Your task to perform on an android device: Show me productivity apps on the Play Store Image 0: 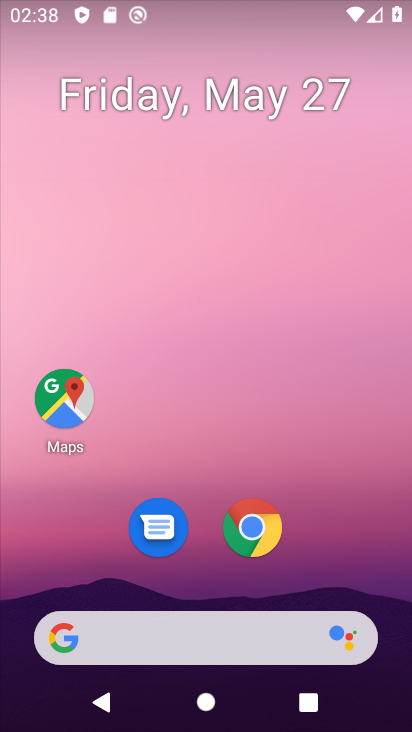
Step 0: drag from (268, 588) to (257, 232)
Your task to perform on an android device: Show me productivity apps on the Play Store Image 1: 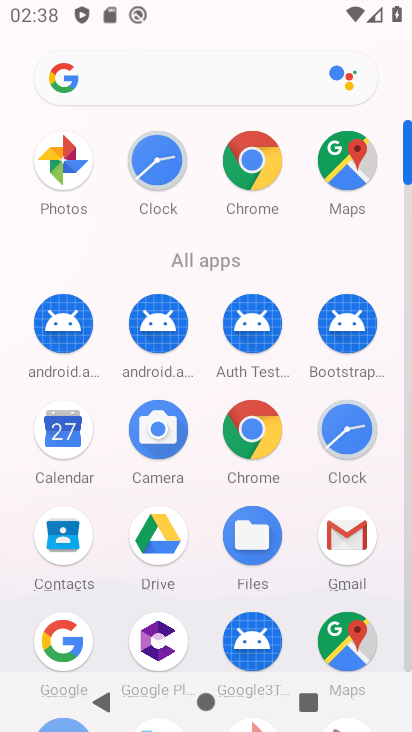
Step 1: drag from (148, 606) to (144, 320)
Your task to perform on an android device: Show me productivity apps on the Play Store Image 2: 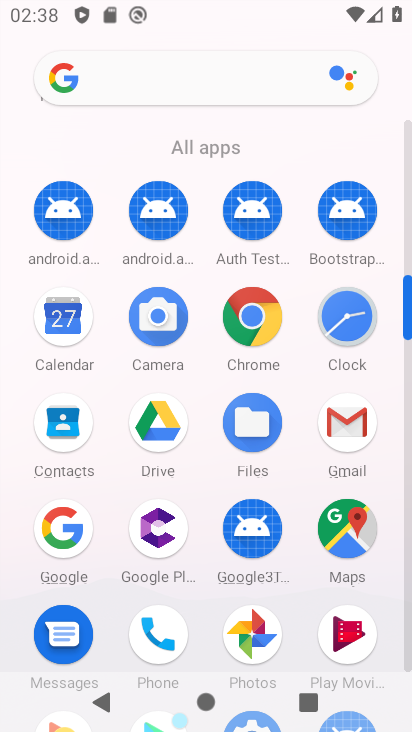
Step 2: drag from (249, 647) to (249, 414)
Your task to perform on an android device: Show me productivity apps on the Play Store Image 3: 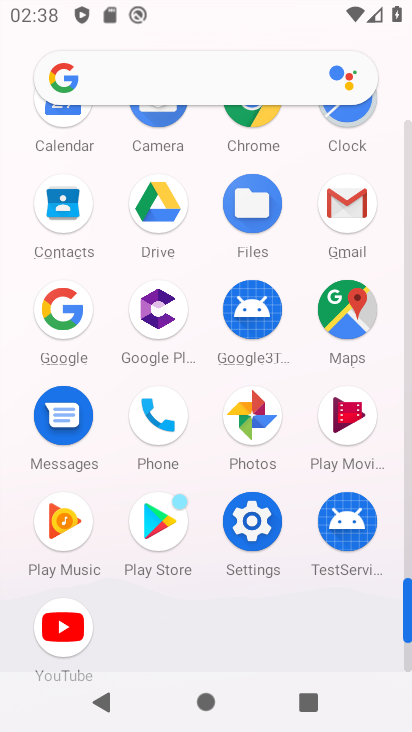
Step 3: click (174, 554)
Your task to perform on an android device: Show me productivity apps on the Play Store Image 4: 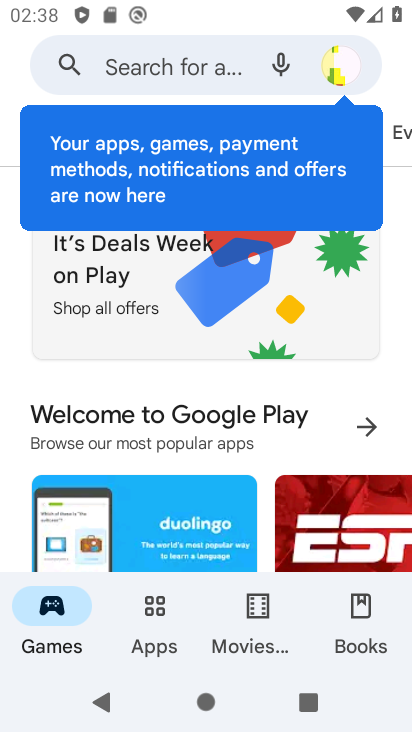
Step 4: click (164, 640)
Your task to perform on an android device: Show me productivity apps on the Play Store Image 5: 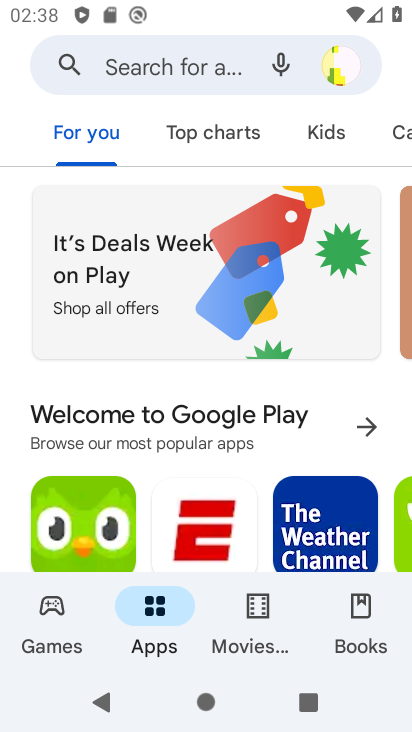
Step 5: drag from (324, 135) to (2, 118)
Your task to perform on an android device: Show me productivity apps on the Play Store Image 6: 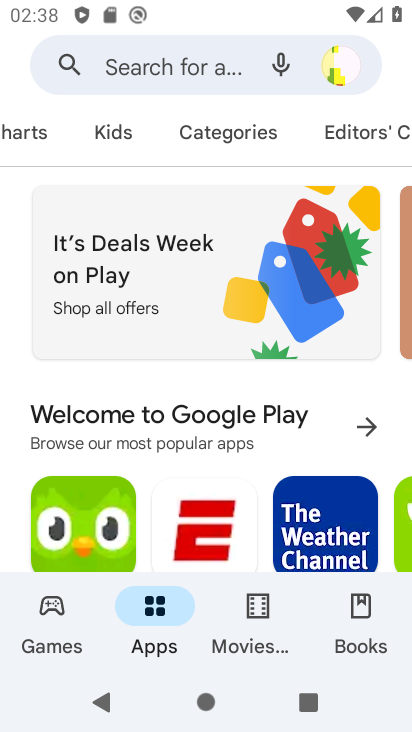
Step 6: click (243, 129)
Your task to perform on an android device: Show me productivity apps on the Play Store Image 7: 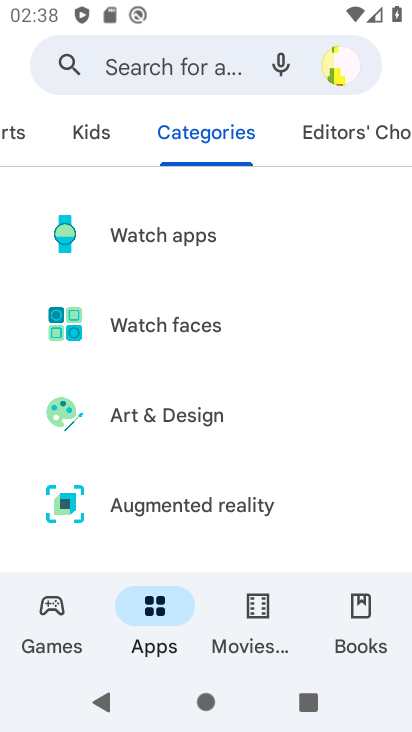
Step 7: drag from (181, 518) to (209, 223)
Your task to perform on an android device: Show me productivity apps on the Play Store Image 8: 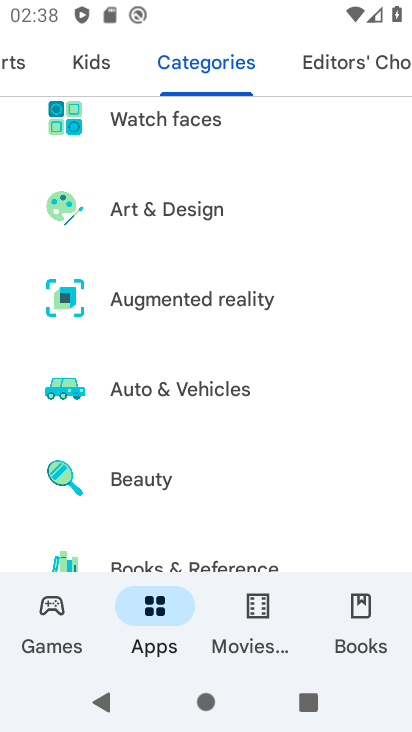
Step 8: drag from (194, 511) to (220, 212)
Your task to perform on an android device: Show me productivity apps on the Play Store Image 9: 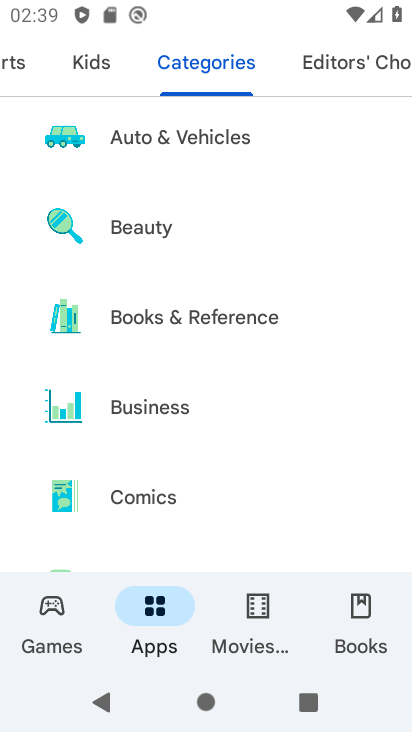
Step 9: drag from (203, 472) to (228, 191)
Your task to perform on an android device: Show me productivity apps on the Play Store Image 10: 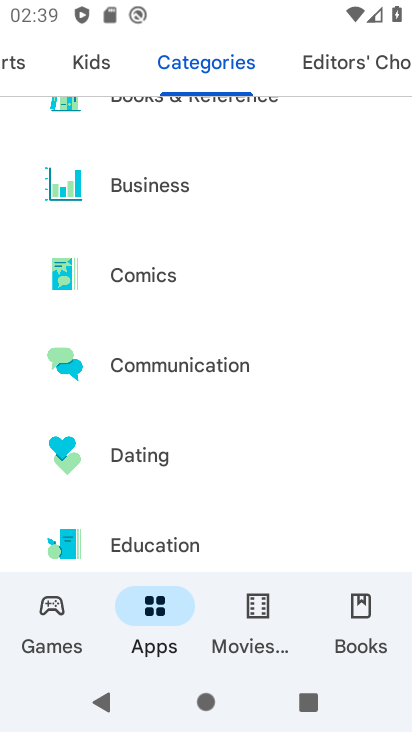
Step 10: drag from (179, 503) to (220, 114)
Your task to perform on an android device: Show me productivity apps on the Play Store Image 11: 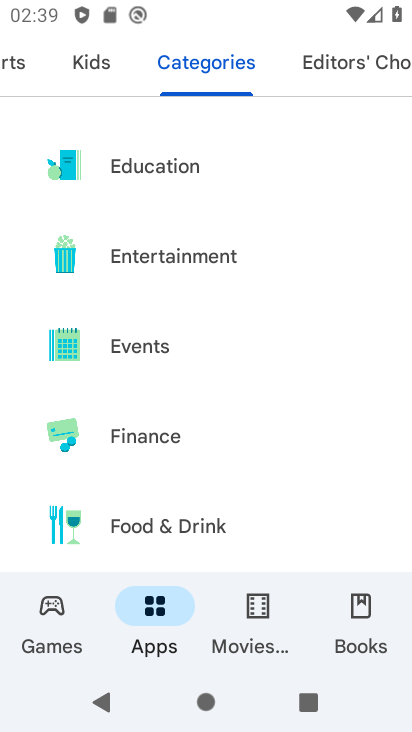
Step 11: drag from (174, 483) to (202, 93)
Your task to perform on an android device: Show me productivity apps on the Play Store Image 12: 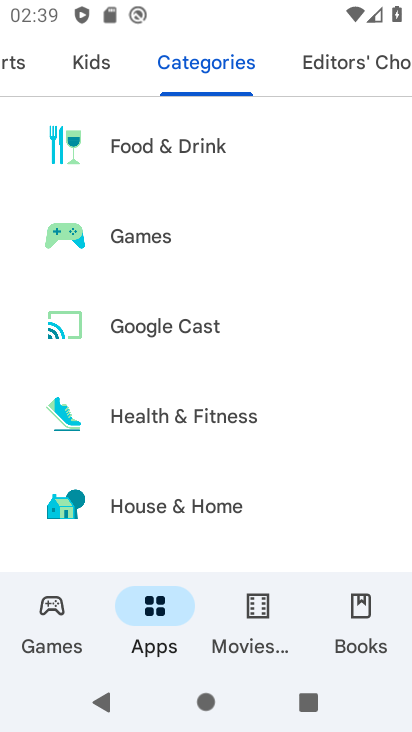
Step 12: drag from (170, 471) to (180, 118)
Your task to perform on an android device: Show me productivity apps on the Play Store Image 13: 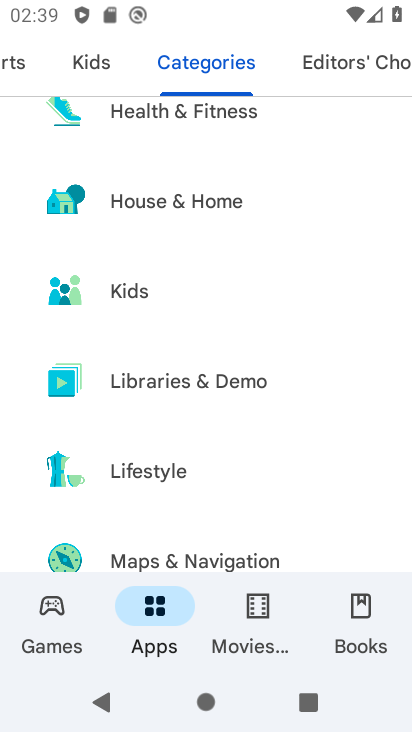
Step 13: drag from (177, 552) to (211, 144)
Your task to perform on an android device: Show me productivity apps on the Play Store Image 14: 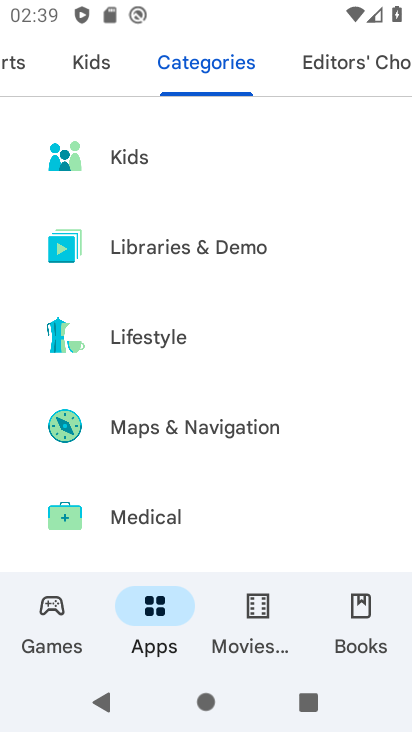
Step 14: drag from (199, 512) to (193, 171)
Your task to perform on an android device: Show me productivity apps on the Play Store Image 15: 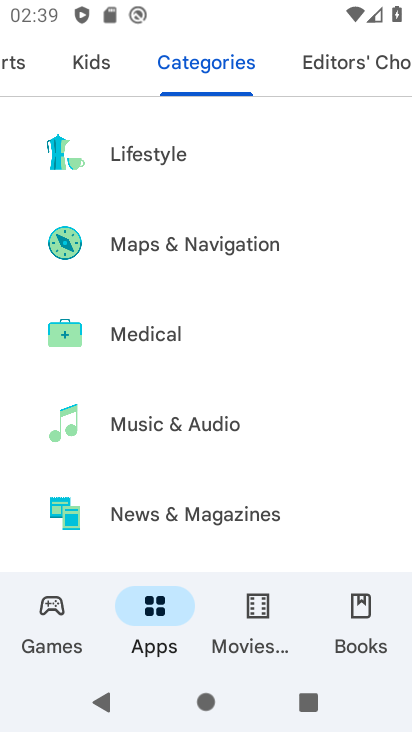
Step 15: drag from (196, 466) to (194, 110)
Your task to perform on an android device: Show me productivity apps on the Play Store Image 16: 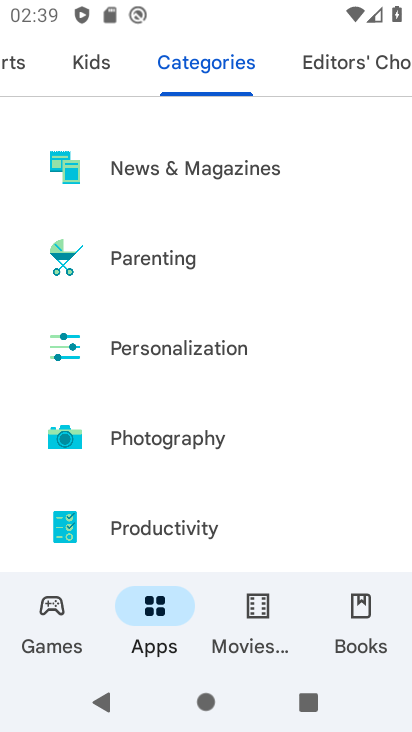
Step 16: click (179, 532)
Your task to perform on an android device: Show me productivity apps on the Play Store Image 17: 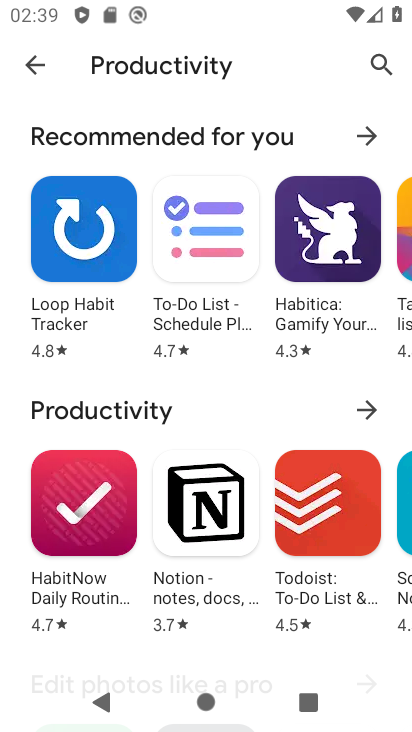
Step 17: task complete